Your task to perform on an android device: Search for vegetarian restaurants on Maps Image 0: 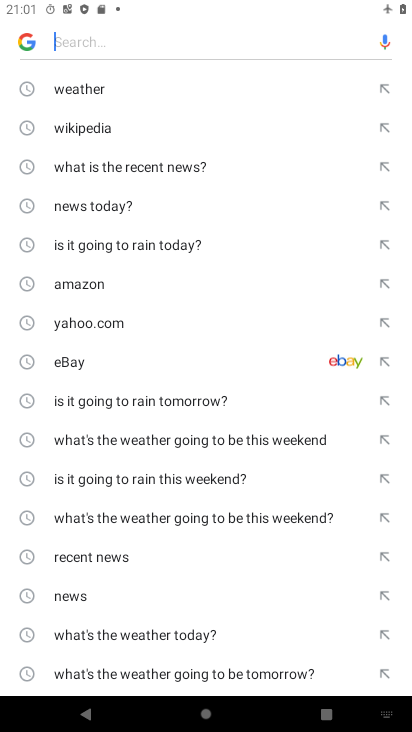
Step 0: press home button
Your task to perform on an android device: Search for vegetarian restaurants on Maps Image 1: 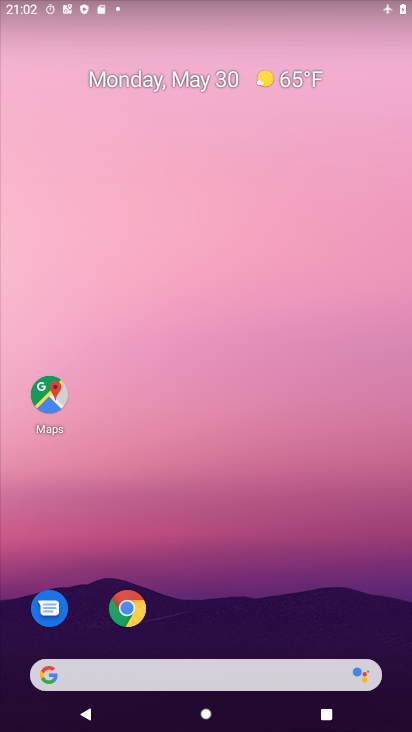
Step 1: click (40, 399)
Your task to perform on an android device: Search for vegetarian restaurants on Maps Image 2: 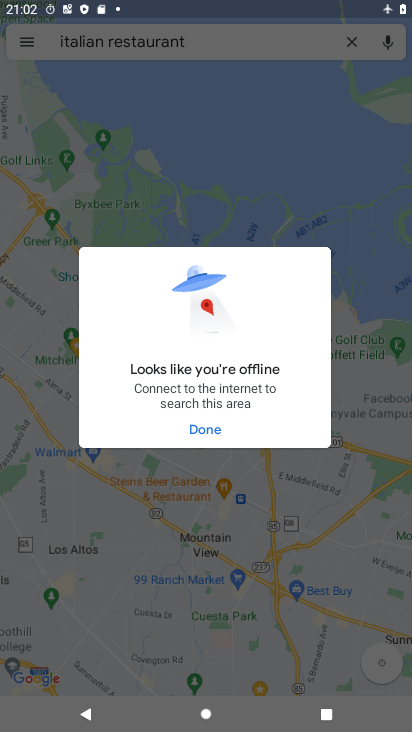
Step 2: task complete